Your task to perform on an android device: uninstall "Gmail" Image 0: 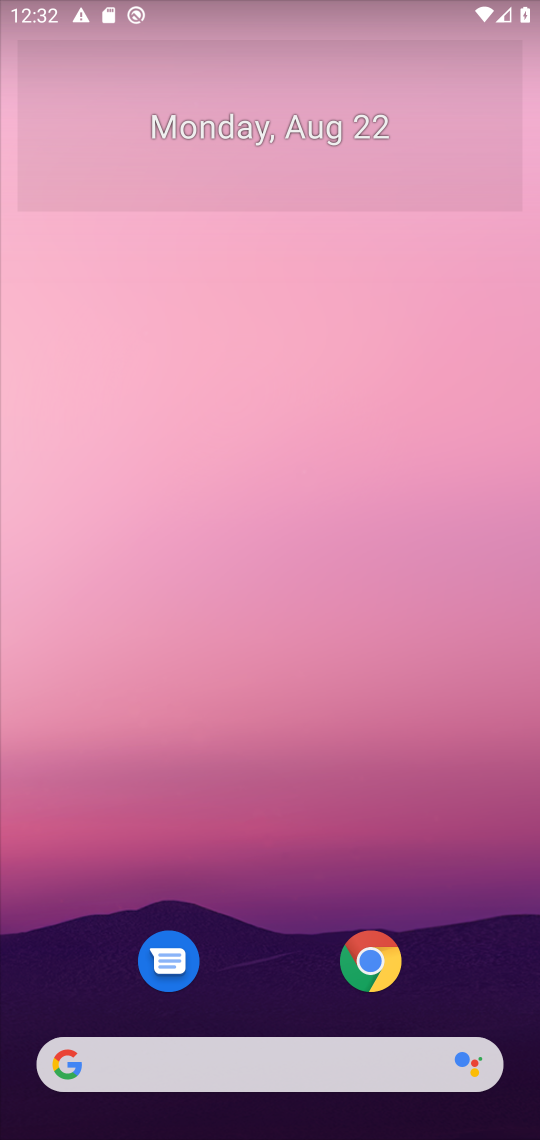
Step 0: press home button
Your task to perform on an android device: uninstall "Gmail" Image 1: 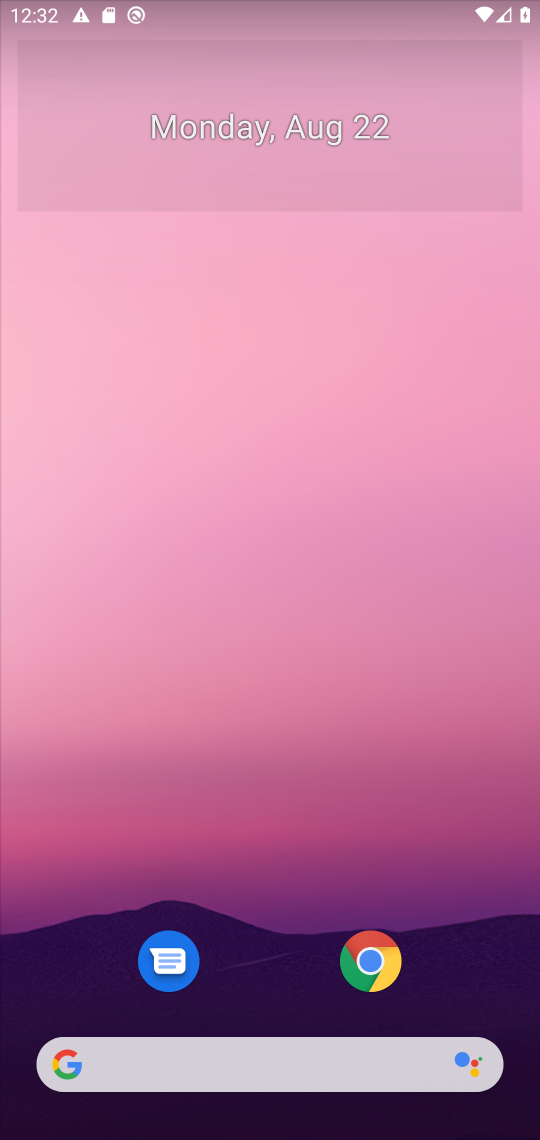
Step 1: drag from (481, 918) to (448, 188)
Your task to perform on an android device: uninstall "Gmail" Image 2: 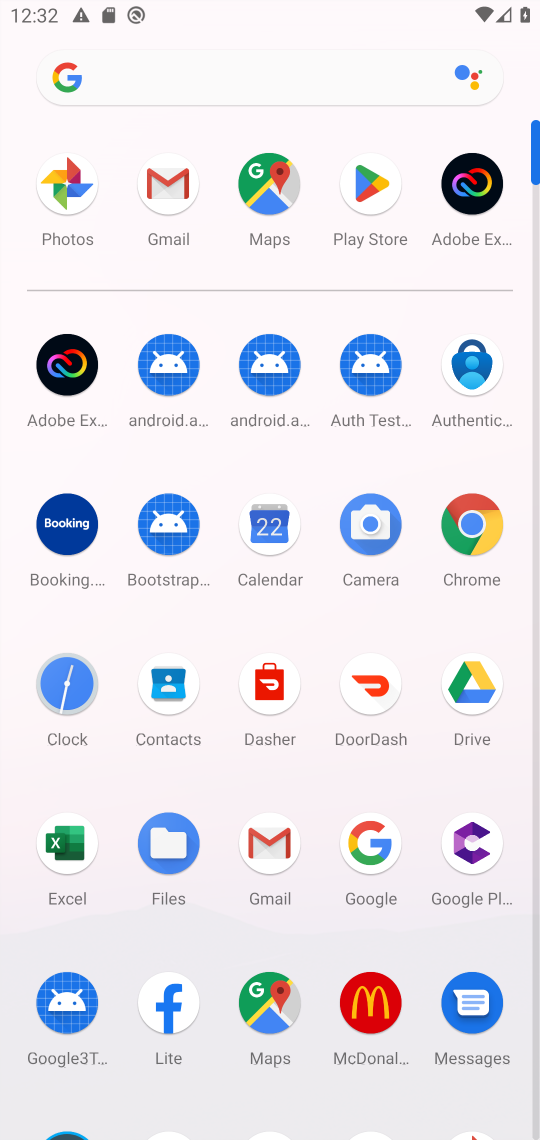
Step 2: click (373, 190)
Your task to perform on an android device: uninstall "Gmail" Image 3: 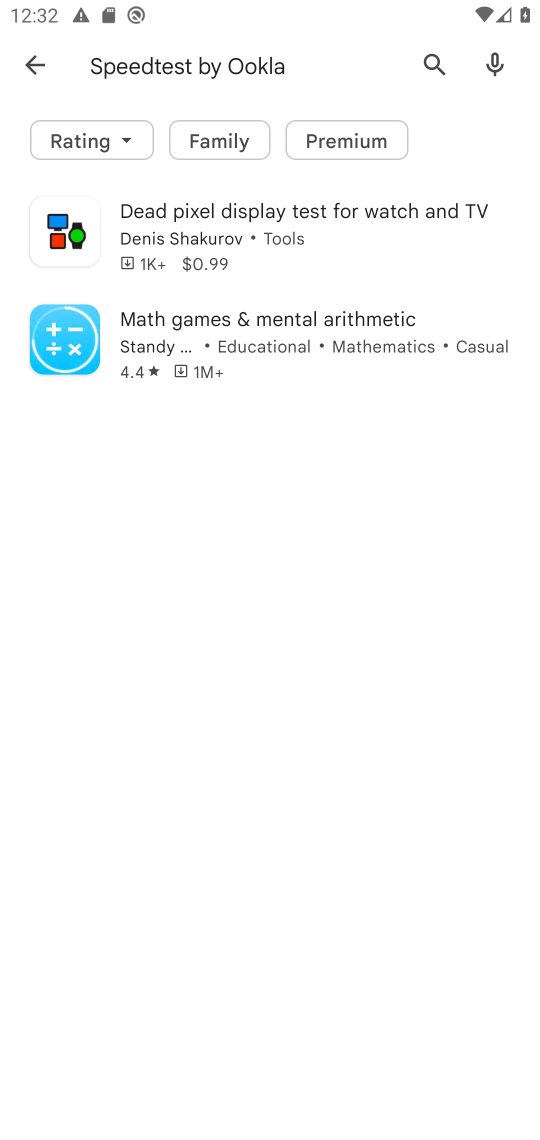
Step 3: press back button
Your task to perform on an android device: uninstall "Gmail" Image 4: 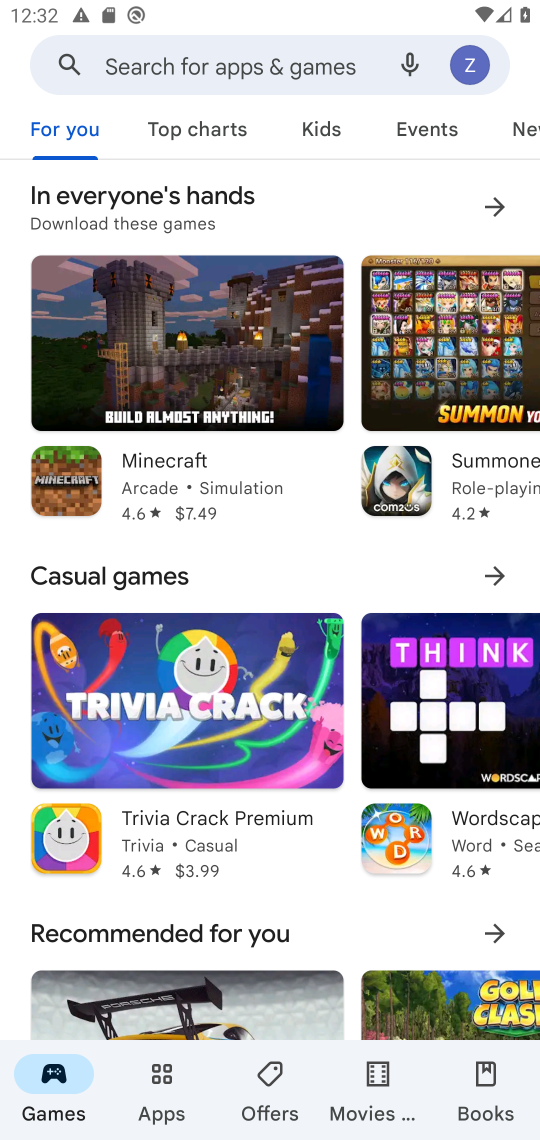
Step 4: click (279, 55)
Your task to perform on an android device: uninstall "Gmail" Image 5: 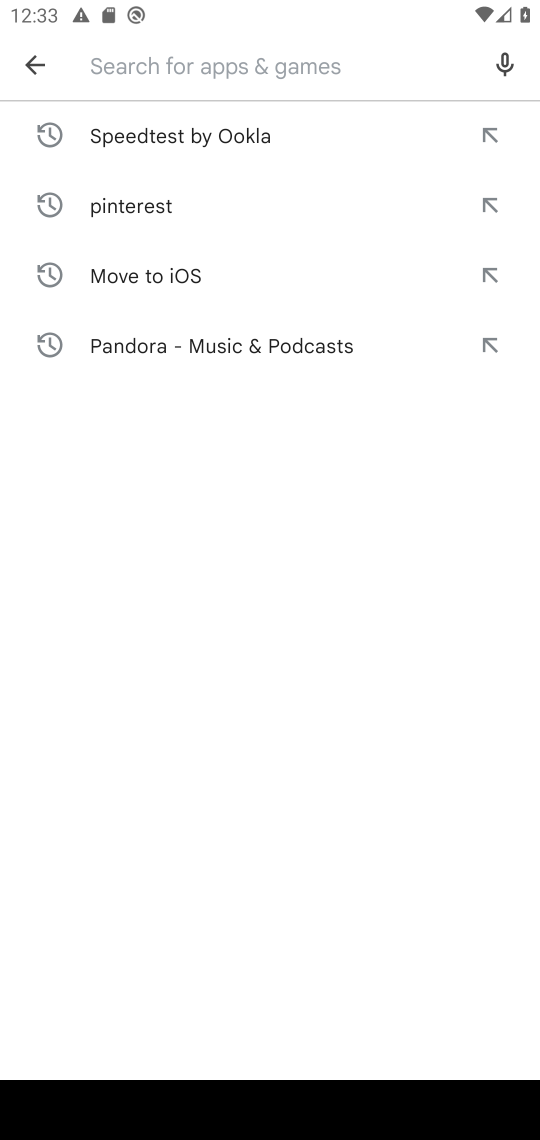
Step 5: press enter
Your task to perform on an android device: uninstall "Gmail" Image 6: 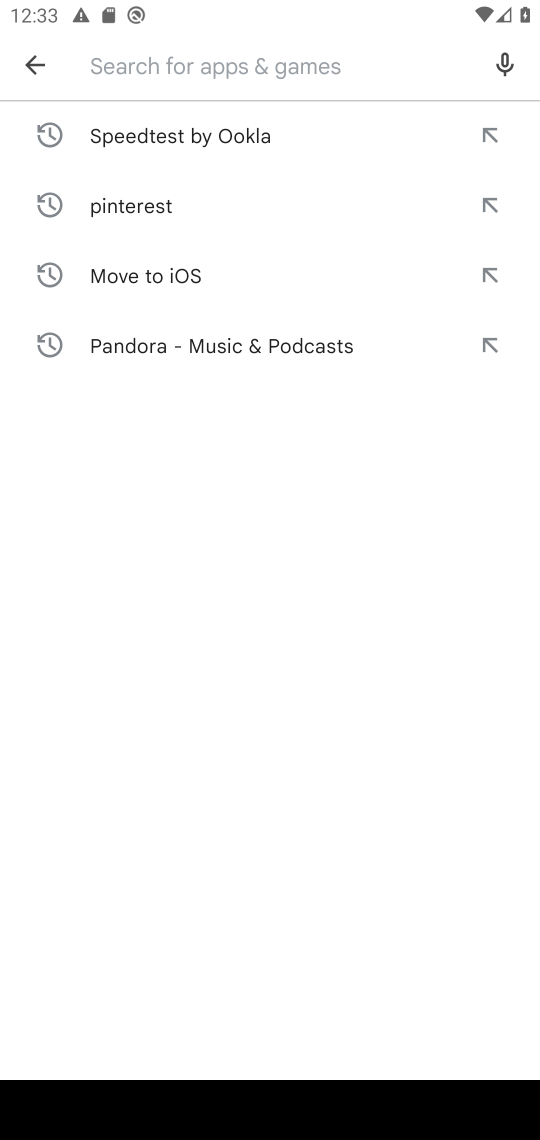
Step 6: type "gmail"
Your task to perform on an android device: uninstall "Gmail" Image 7: 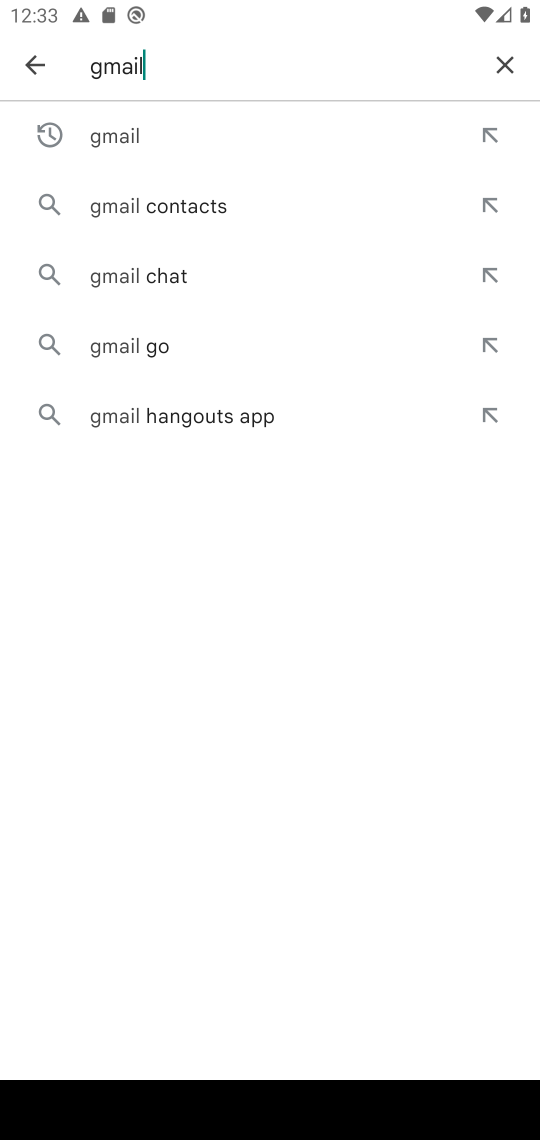
Step 7: click (126, 131)
Your task to perform on an android device: uninstall "Gmail" Image 8: 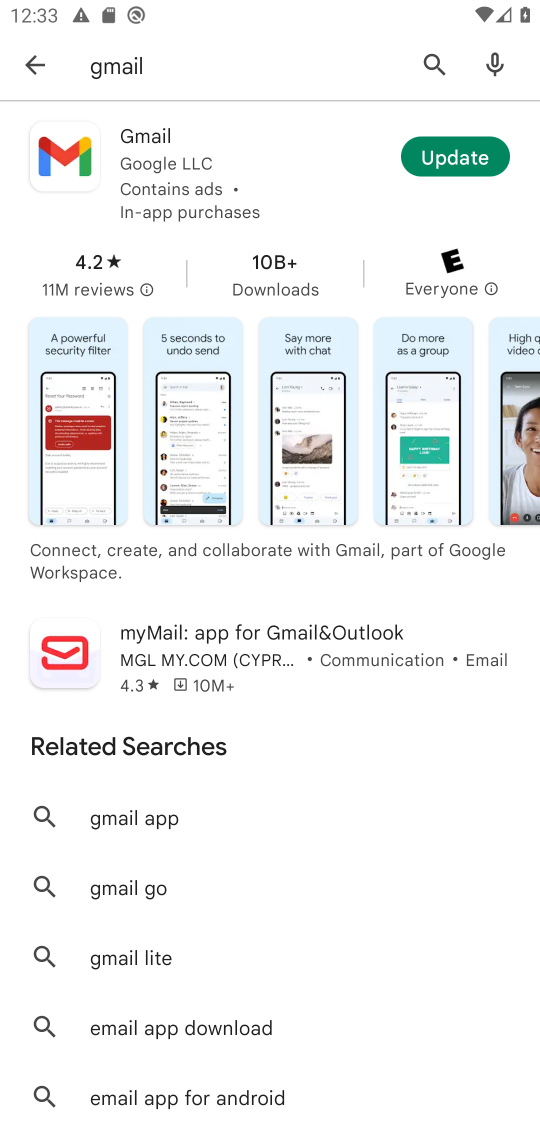
Step 8: task complete